Your task to perform on an android device: open a new tab in the chrome app Image 0: 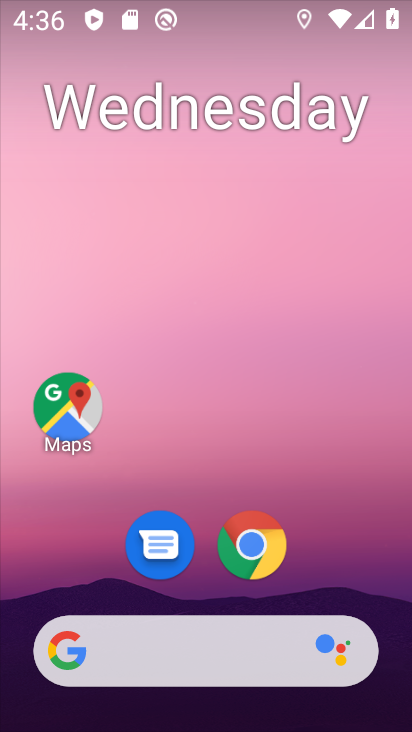
Step 0: drag from (168, 623) to (109, 30)
Your task to perform on an android device: open a new tab in the chrome app Image 1: 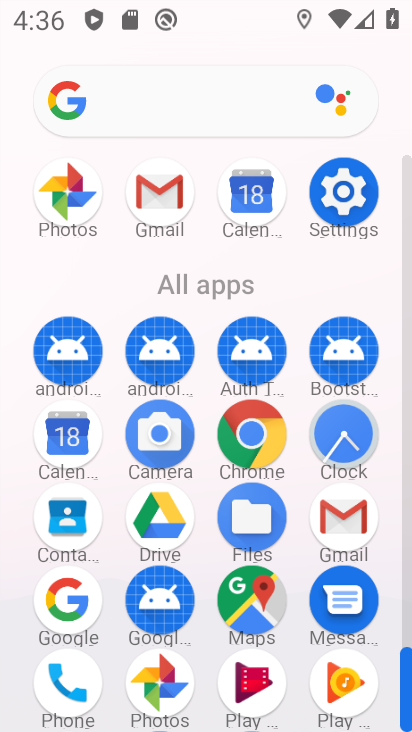
Step 1: click (259, 437)
Your task to perform on an android device: open a new tab in the chrome app Image 2: 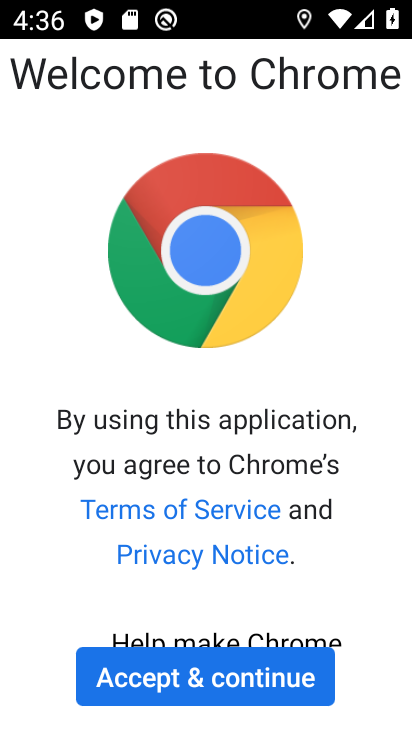
Step 2: click (252, 659)
Your task to perform on an android device: open a new tab in the chrome app Image 3: 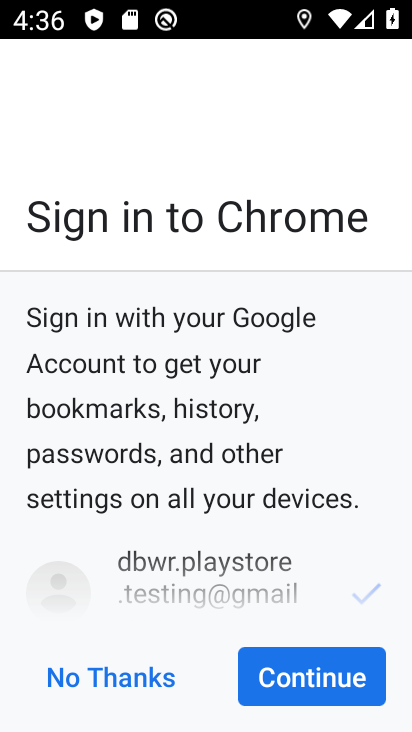
Step 3: click (305, 696)
Your task to perform on an android device: open a new tab in the chrome app Image 4: 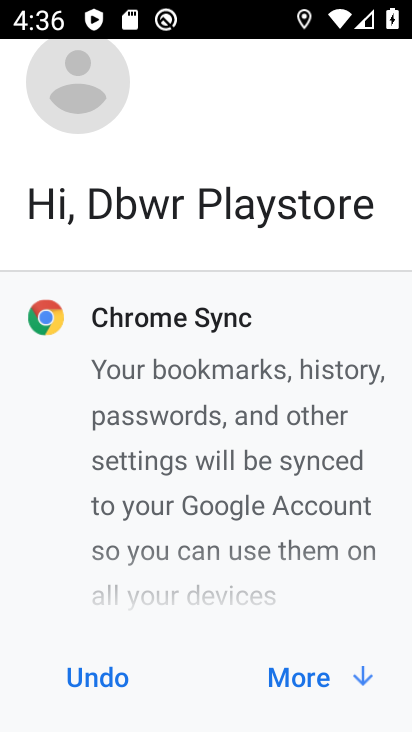
Step 4: click (328, 710)
Your task to perform on an android device: open a new tab in the chrome app Image 5: 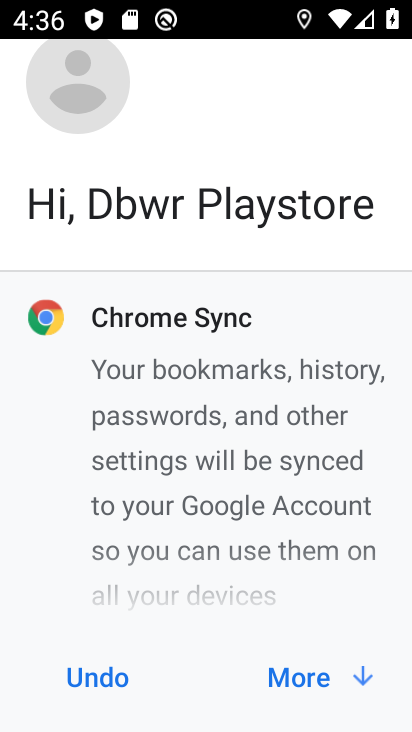
Step 5: click (327, 686)
Your task to perform on an android device: open a new tab in the chrome app Image 6: 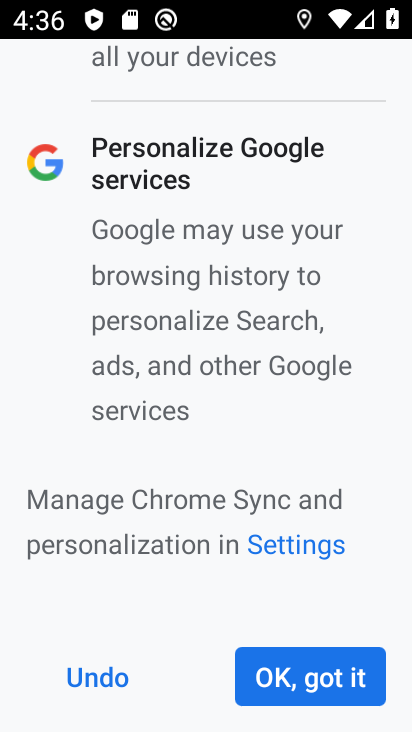
Step 6: click (327, 685)
Your task to perform on an android device: open a new tab in the chrome app Image 7: 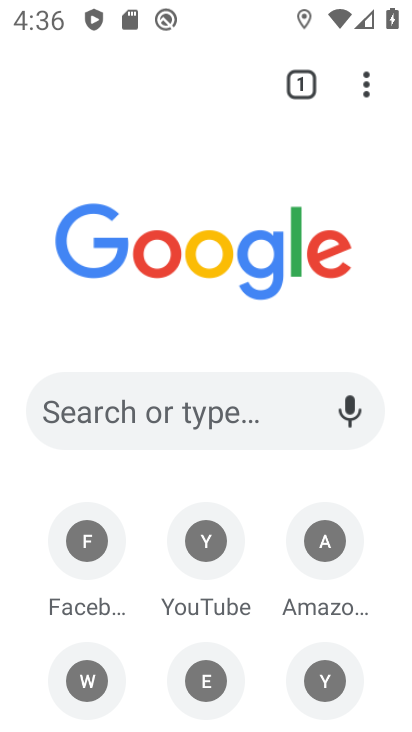
Step 7: click (307, 98)
Your task to perform on an android device: open a new tab in the chrome app Image 8: 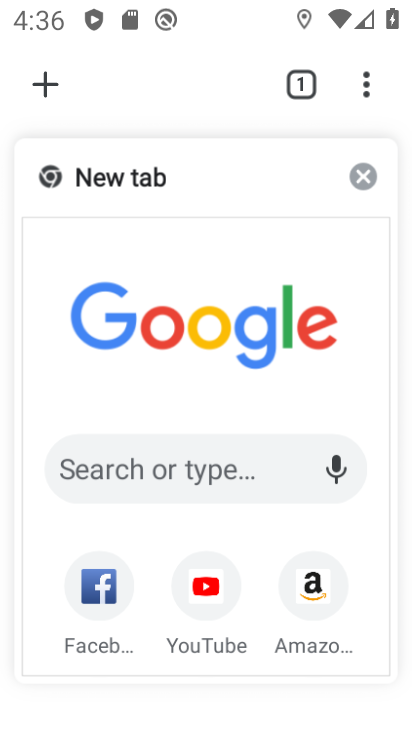
Step 8: click (42, 77)
Your task to perform on an android device: open a new tab in the chrome app Image 9: 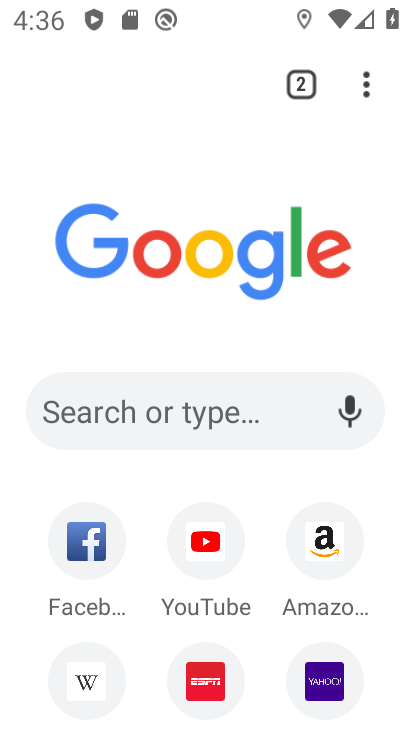
Step 9: task complete